Your task to perform on an android device: show emergency info Image 0: 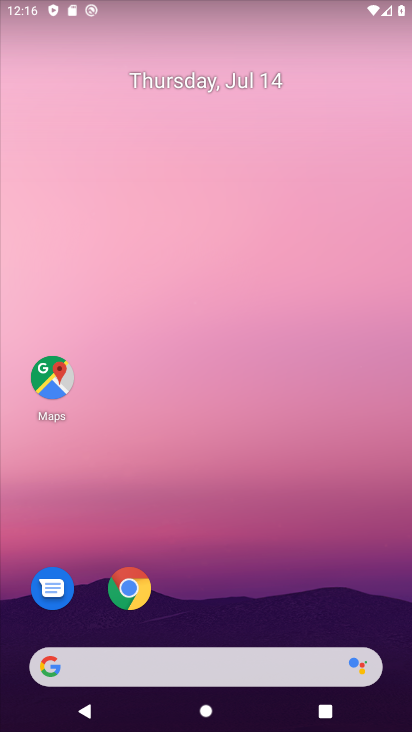
Step 0: drag from (216, 619) to (249, 118)
Your task to perform on an android device: show emergency info Image 1: 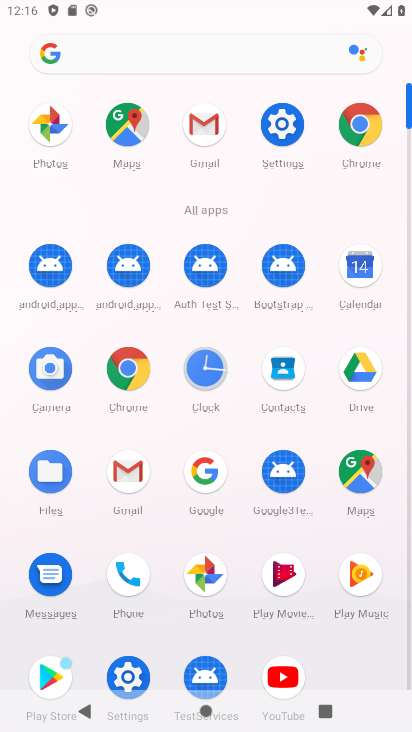
Step 1: click (278, 128)
Your task to perform on an android device: show emergency info Image 2: 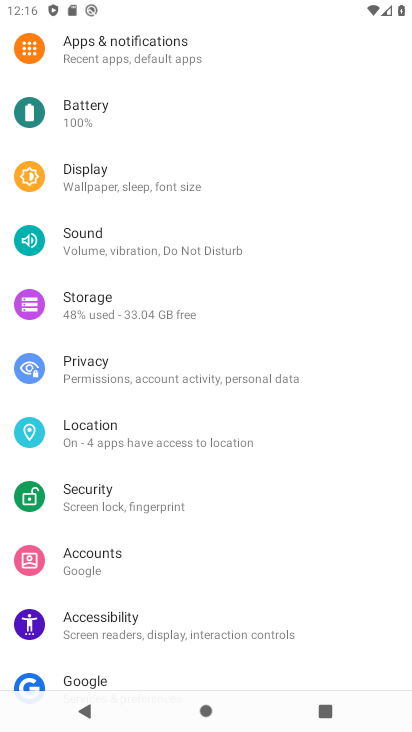
Step 2: drag from (238, 622) to (267, 118)
Your task to perform on an android device: show emergency info Image 3: 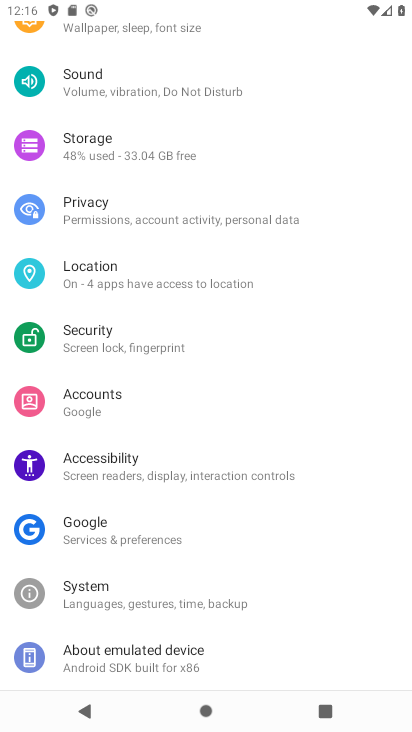
Step 3: click (141, 654)
Your task to perform on an android device: show emergency info Image 4: 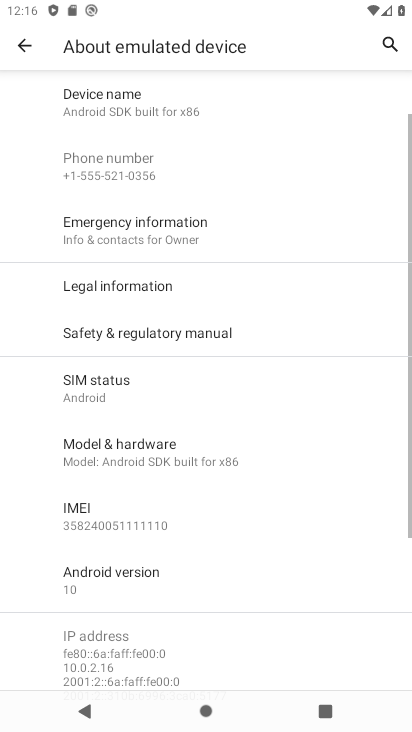
Step 4: click (106, 225)
Your task to perform on an android device: show emergency info Image 5: 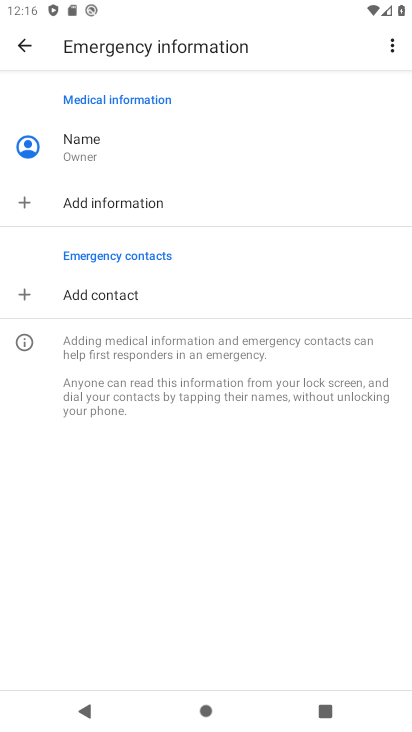
Step 5: task complete